Your task to perform on an android device: see creations saved in the google photos Image 0: 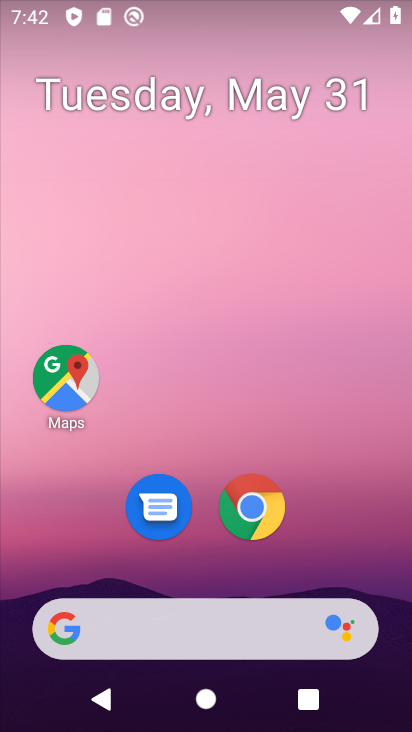
Step 0: drag from (352, 559) to (200, 58)
Your task to perform on an android device: see creations saved in the google photos Image 1: 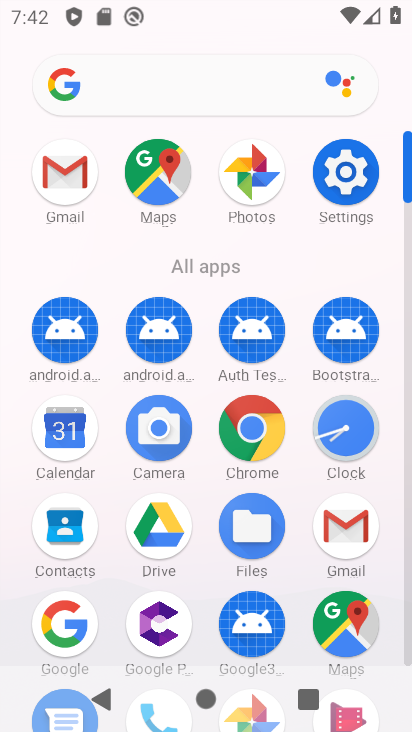
Step 1: click (251, 182)
Your task to perform on an android device: see creations saved in the google photos Image 2: 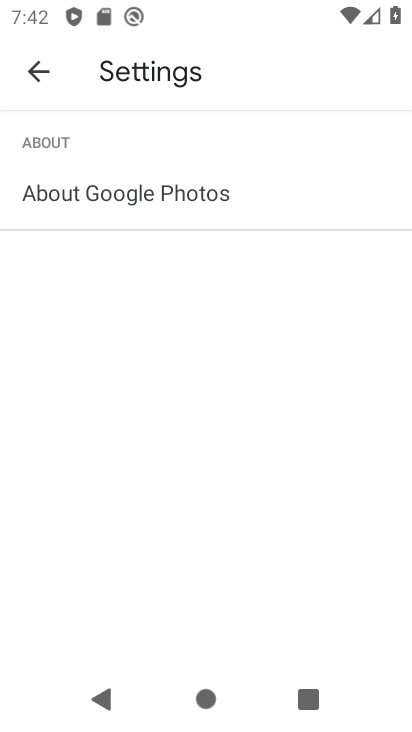
Step 2: click (26, 68)
Your task to perform on an android device: see creations saved in the google photos Image 3: 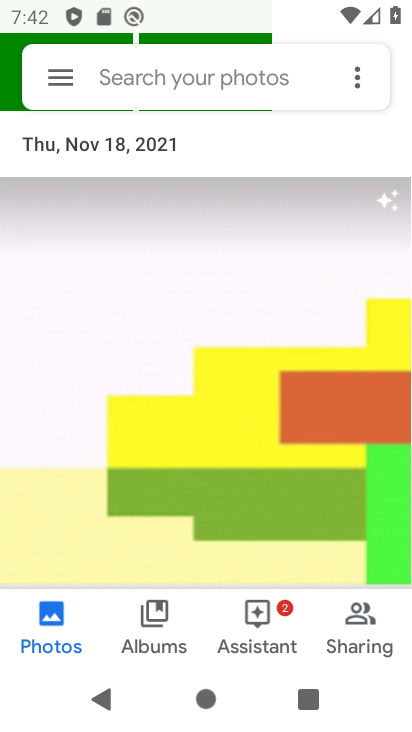
Step 3: click (109, 77)
Your task to perform on an android device: see creations saved in the google photos Image 4: 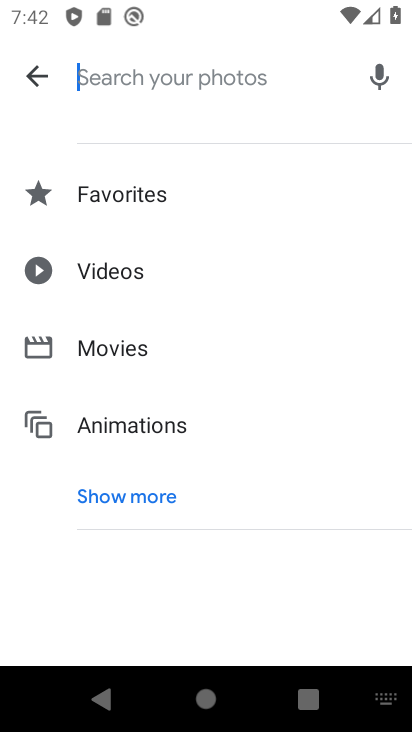
Step 4: click (96, 490)
Your task to perform on an android device: see creations saved in the google photos Image 5: 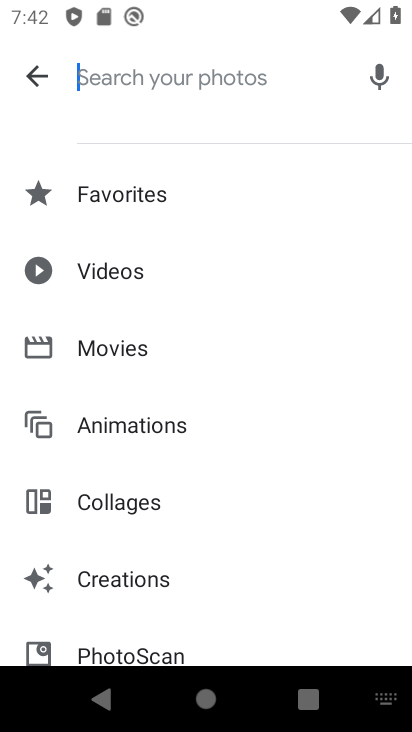
Step 5: click (151, 586)
Your task to perform on an android device: see creations saved in the google photos Image 6: 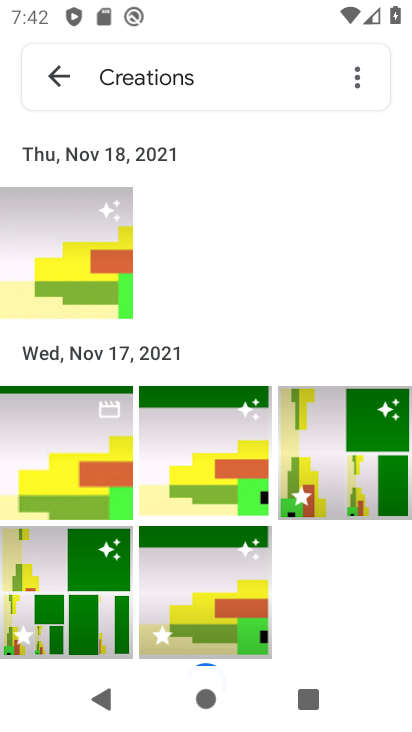
Step 6: task complete